Your task to perform on an android device: turn off notifications settings in the gmail app Image 0: 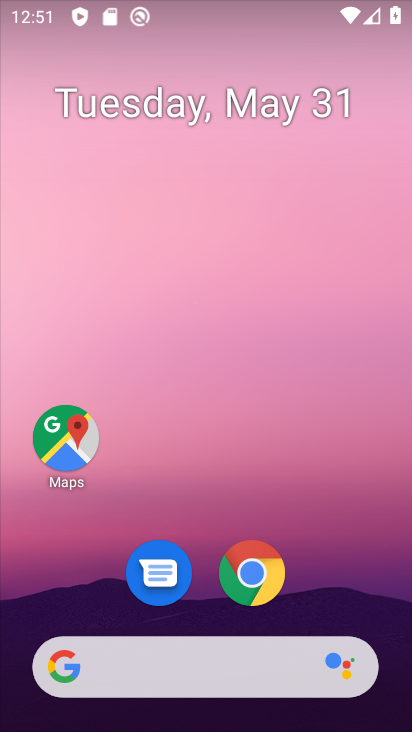
Step 0: drag from (367, 599) to (336, 179)
Your task to perform on an android device: turn off notifications settings in the gmail app Image 1: 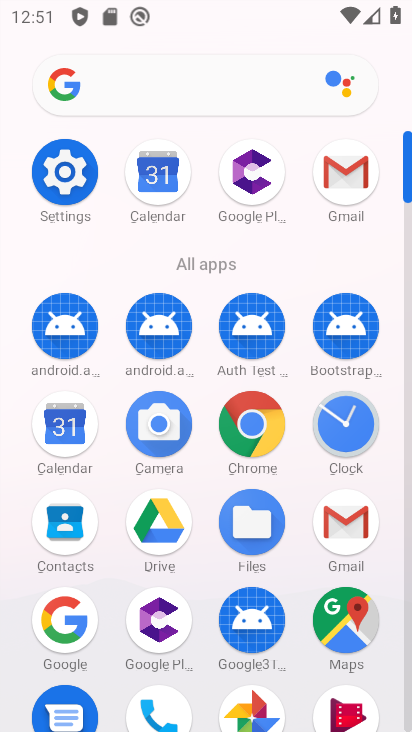
Step 1: click (350, 522)
Your task to perform on an android device: turn off notifications settings in the gmail app Image 2: 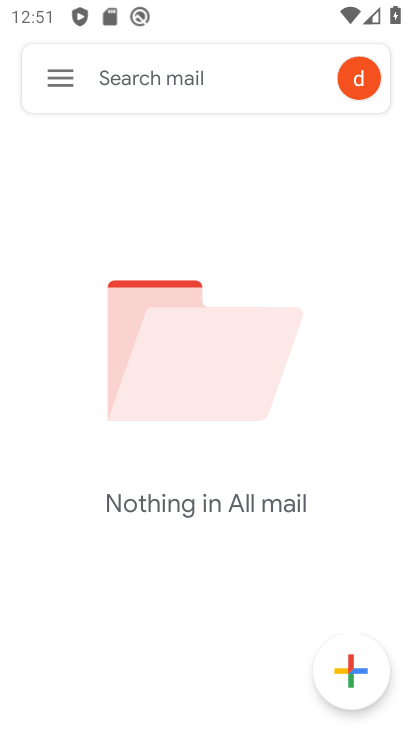
Step 2: click (52, 66)
Your task to perform on an android device: turn off notifications settings in the gmail app Image 3: 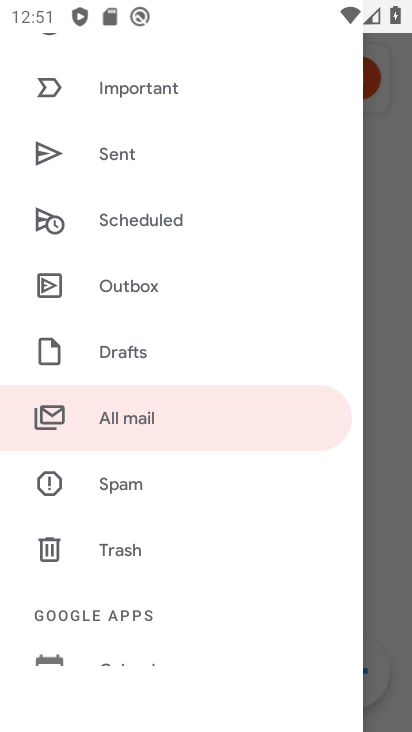
Step 3: drag from (246, 248) to (255, 364)
Your task to perform on an android device: turn off notifications settings in the gmail app Image 4: 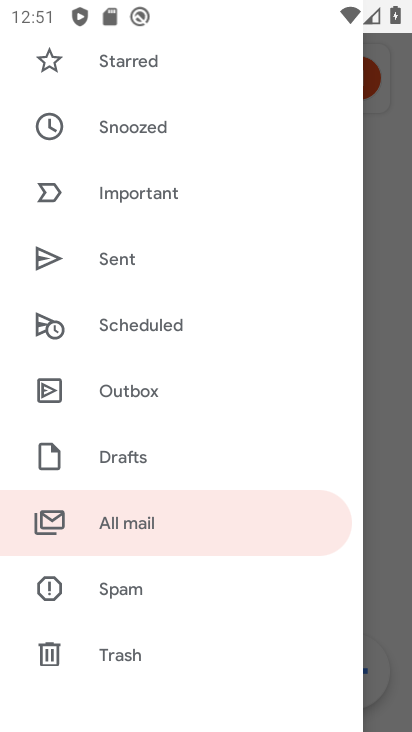
Step 4: drag from (270, 169) to (270, 305)
Your task to perform on an android device: turn off notifications settings in the gmail app Image 5: 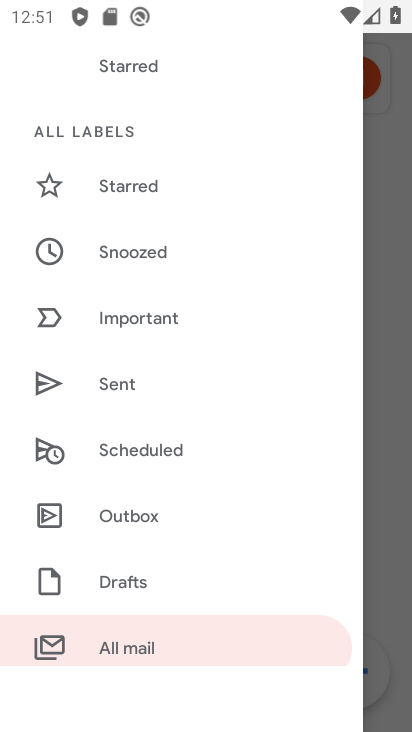
Step 5: drag from (255, 187) to (250, 334)
Your task to perform on an android device: turn off notifications settings in the gmail app Image 6: 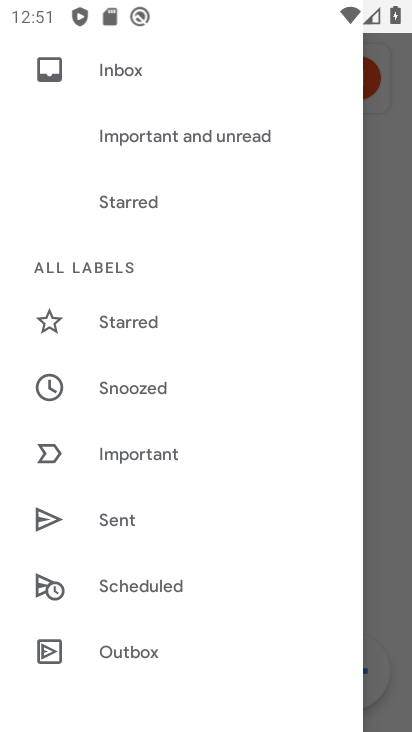
Step 6: drag from (268, 105) to (266, 266)
Your task to perform on an android device: turn off notifications settings in the gmail app Image 7: 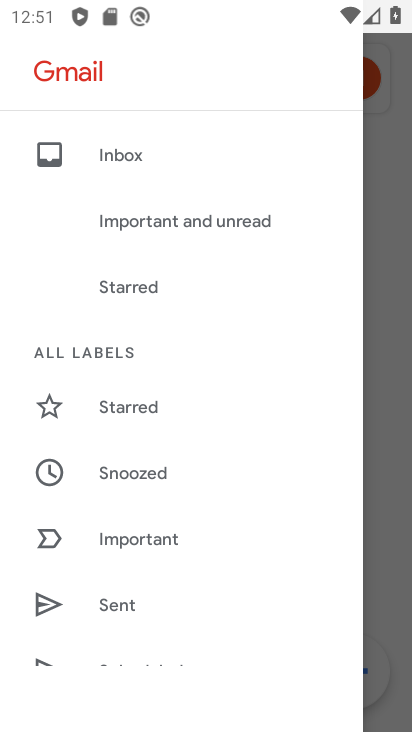
Step 7: drag from (250, 144) to (248, 297)
Your task to perform on an android device: turn off notifications settings in the gmail app Image 8: 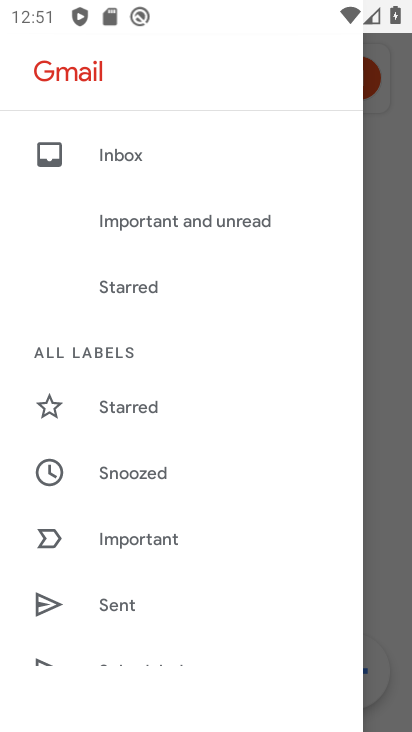
Step 8: drag from (257, 382) to (265, 262)
Your task to perform on an android device: turn off notifications settings in the gmail app Image 9: 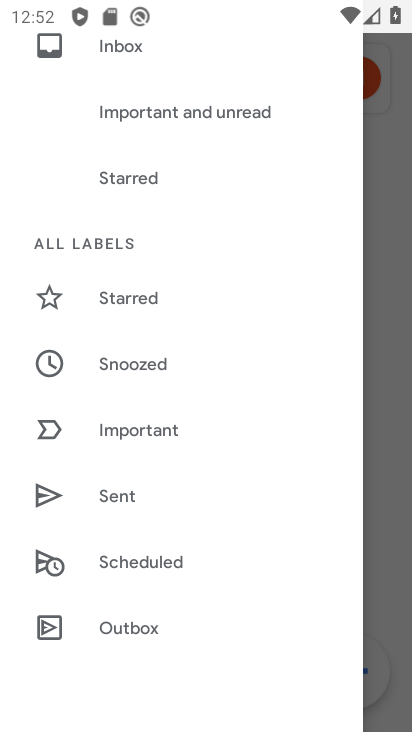
Step 9: drag from (260, 430) to (262, 310)
Your task to perform on an android device: turn off notifications settings in the gmail app Image 10: 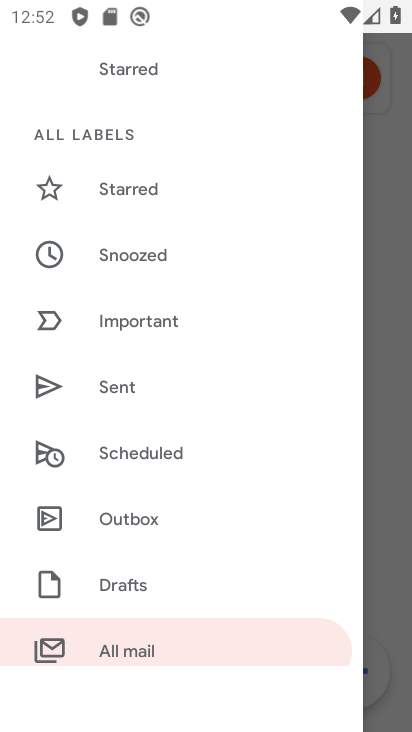
Step 10: drag from (263, 486) to (263, 361)
Your task to perform on an android device: turn off notifications settings in the gmail app Image 11: 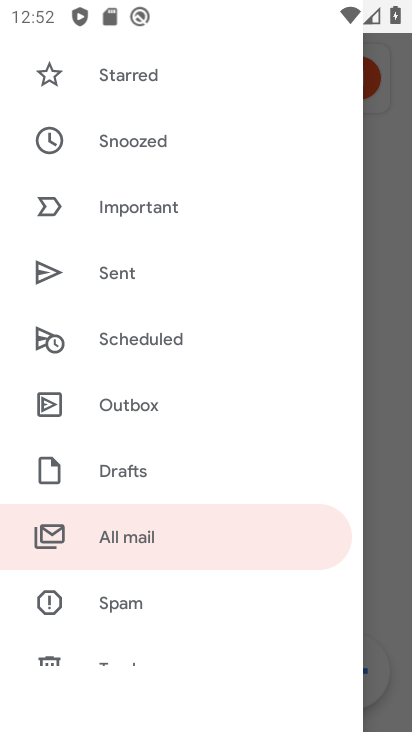
Step 11: drag from (264, 511) to (272, 379)
Your task to perform on an android device: turn off notifications settings in the gmail app Image 12: 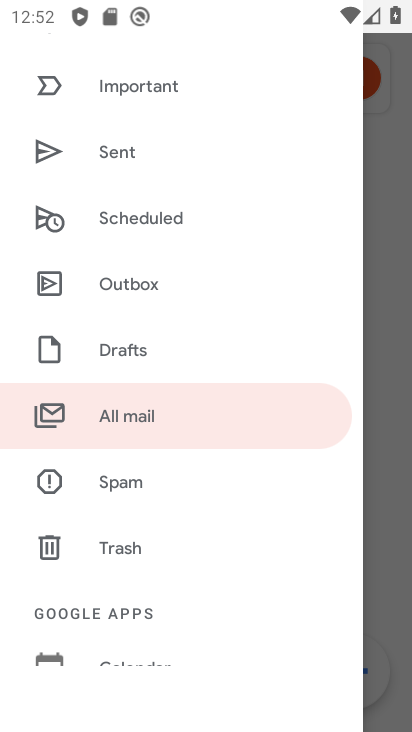
Step 12: drag from (266, 545) to (273, 425)
Your task to perform on an android device: turn off notifications settings in the gmail app Image 13: 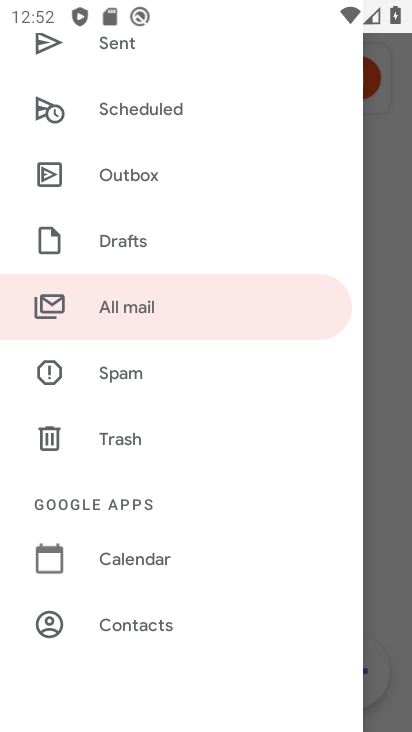
Step 13: drag from (276, 563) to (279, 395)
Your task to perform on an android device: turn off notifications settings in the gmail app Image 14: 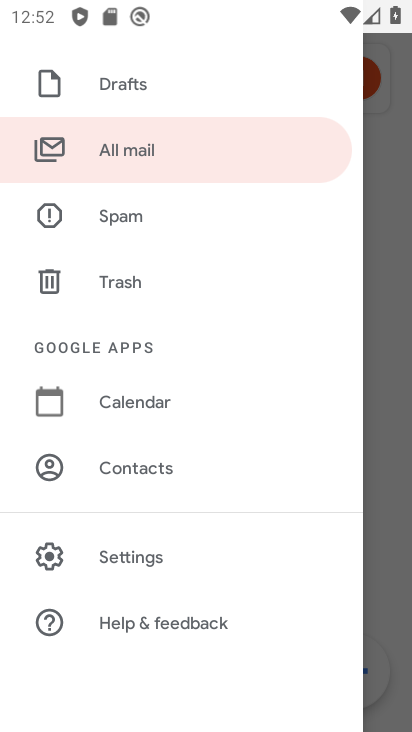
Step 14: drag from (267, 569) to (270, 400)
Your task to perform on an android device: turn off notifications settings in the gmail app Image 15: 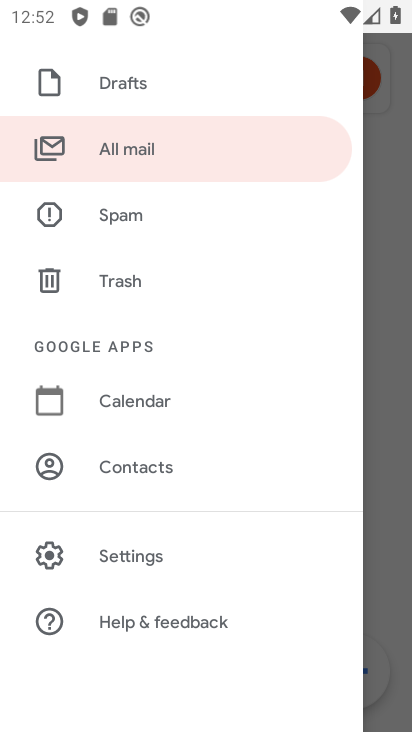
Step 15: click (172, 565)
Your task to perform on an android device: turn off notifications settings in the gmail app Image 16: 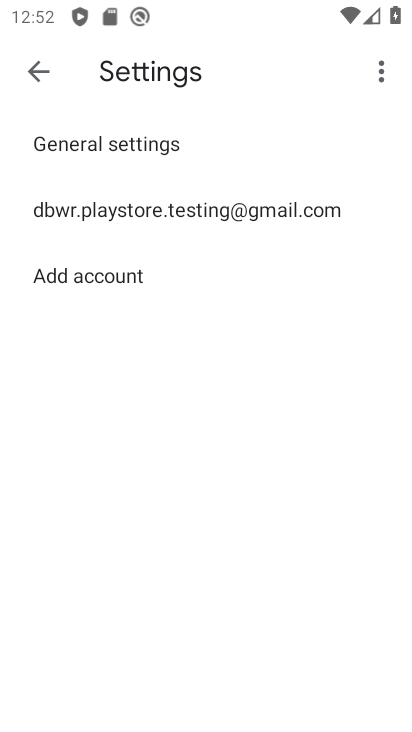
Step 16: click (138, 204)
Your task to perform on an android device: turn off notifications settings in the gmail app Image 17: 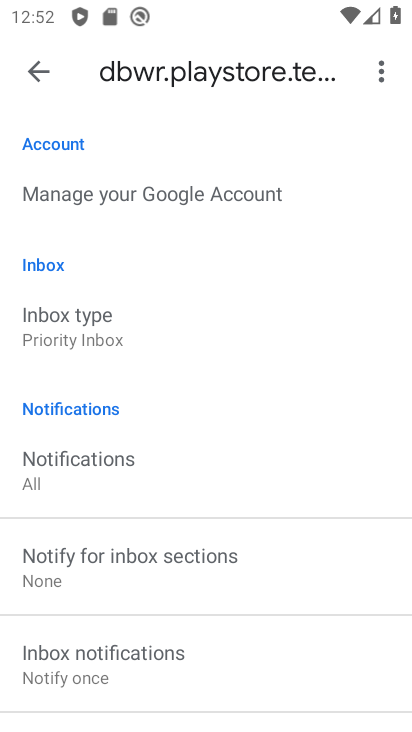
Step 17: drag from (285, 462) to (285, 367)
Your task to perform on an android device: turn off notifications settings in the gmail app Image 18: 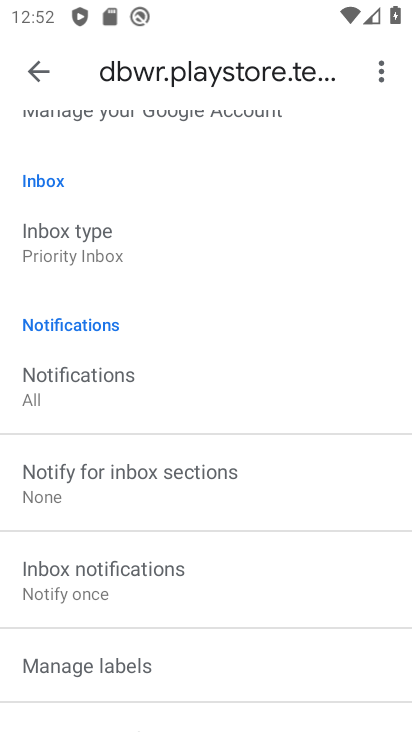
Step 18: drag from (306, 541) to (302, 422)
Your task to perform on an android device: turn off notifications settings in the gmail app Image 19: 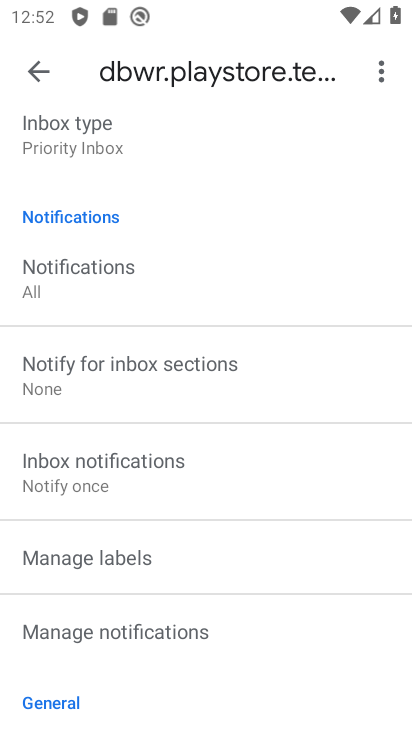
Step 19: drag from (325, 589) to (327, 460)
Your task to perform on an android device: turn off notifications settings in the gmail app Image 20: 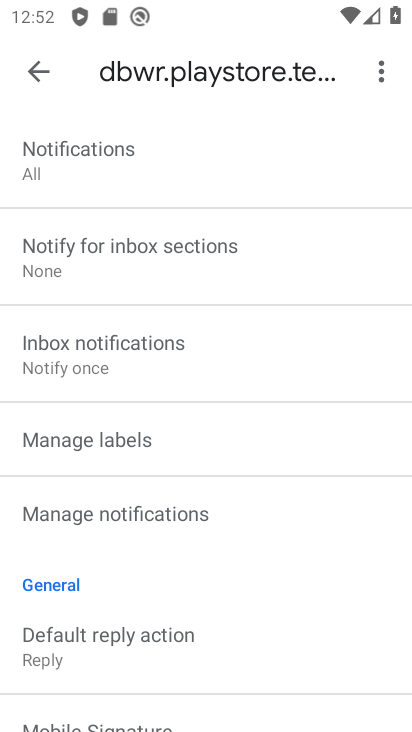
Step 20: drag from (319, 612) to (319, 463)
Your task to perform on an android device: turn off notifications settings in the gmail app Image 21: 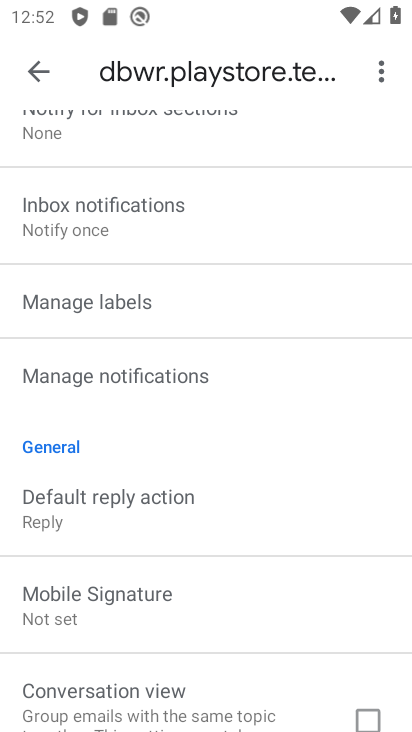
Step 21: drag from (296, 572) to (282, 409)
Your task to perform on an android device: turn off notifications settings in the gmail app Image 22: 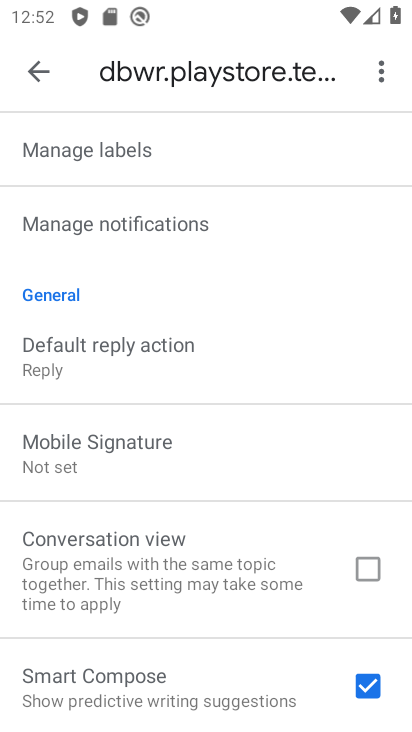
Step 22: drag from (277, 618) to (282, 425)
Your task to perform on an android device: turn off notifications settings in the gmail app Image 23: 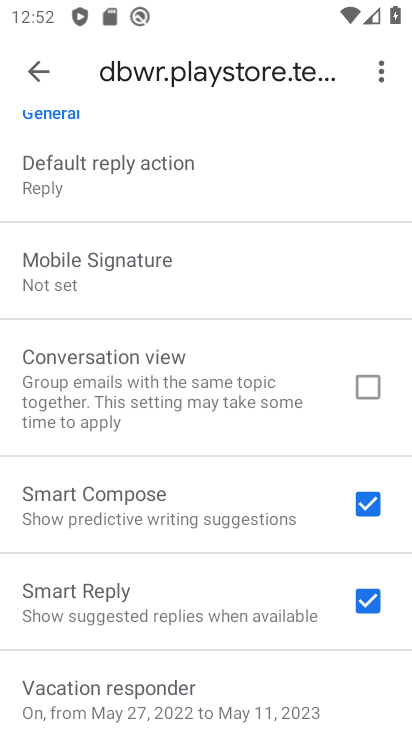
Step 23: drag from (275, 566) to (270, 417)
Your task to perform on an android device: turn off notifications settings in the gmail app Image 24: 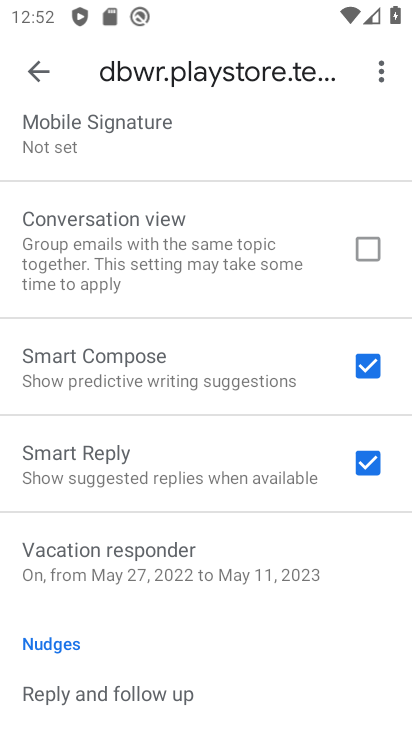
Step 24: drag from (241, 250) to (241, 414)
Your task to perform on an android device: turn off notifications settings in the gmail app Image 25: 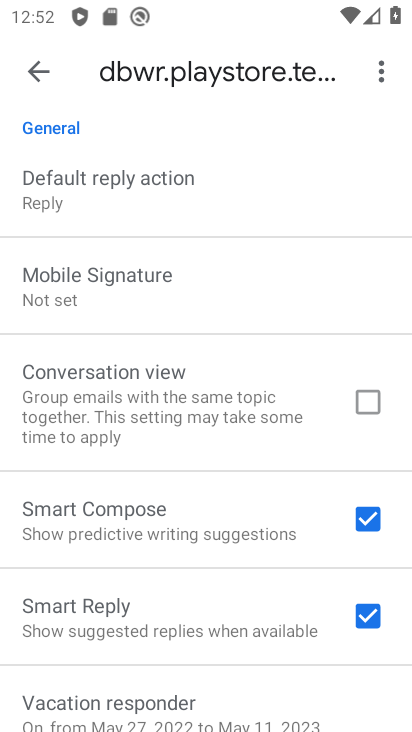
Step 25: drag from (230, 198) to (245, 307)
Your task to perform on an android device: turn off notifications settings in the gmail app Image 26: 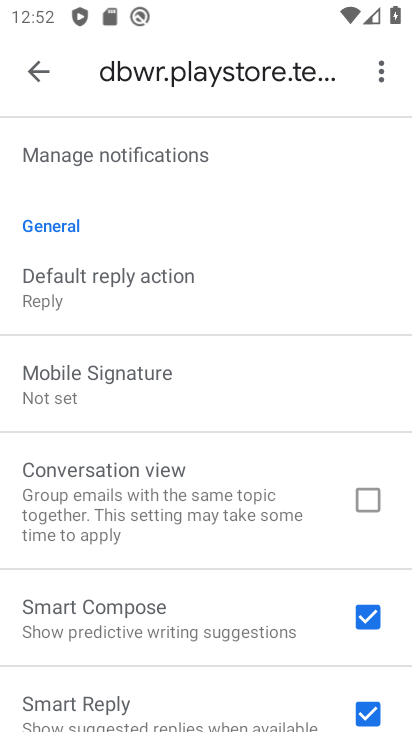
Step 26: drag from (249, 187) to (263, 327)
Your task to perform on an android device: turn off notifications settings in the gmail app Image 27: 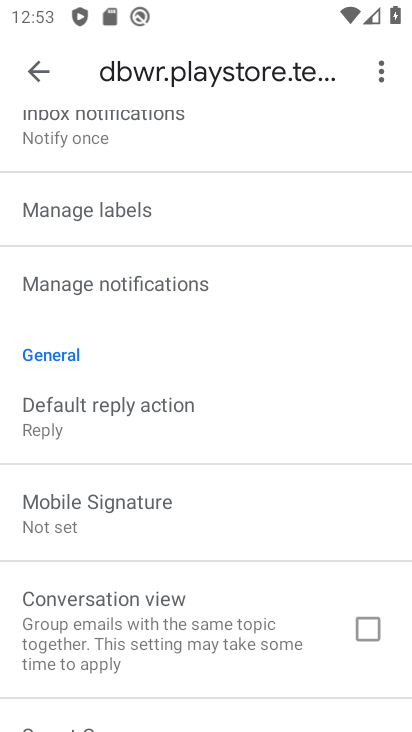
Step 27: click (197, 288)
Your task to perform on an android device: turn off notifications settings in the gmail app Image 28: 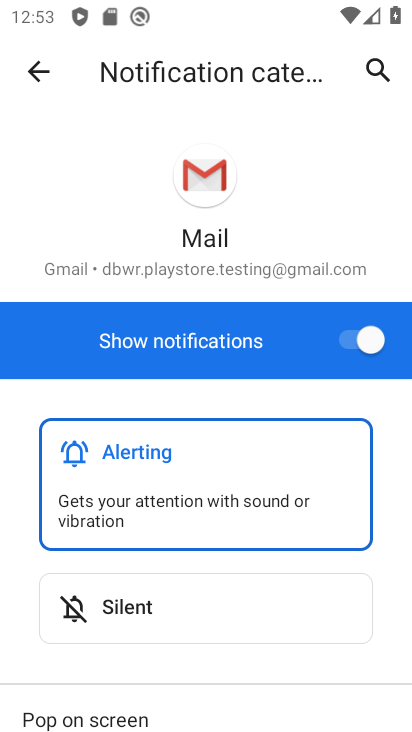
Step 28: click (357, 355)
Your task to perform on an android device: turn off notifications settings in the gmail app Image 29: 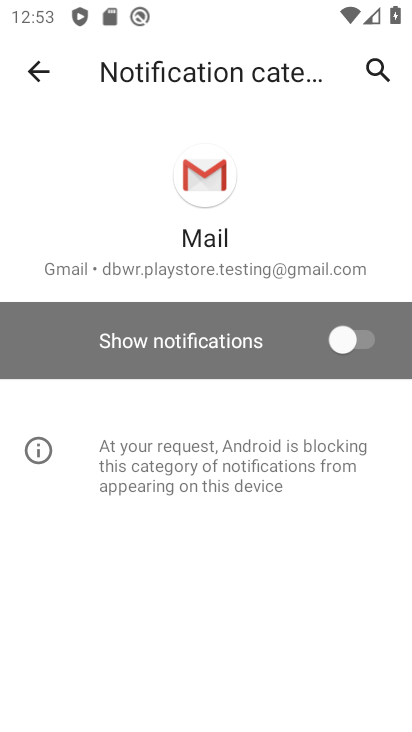
Step 29: task complete